Your task to perform on an android device: clear all cookies in the chrome app Image 0: 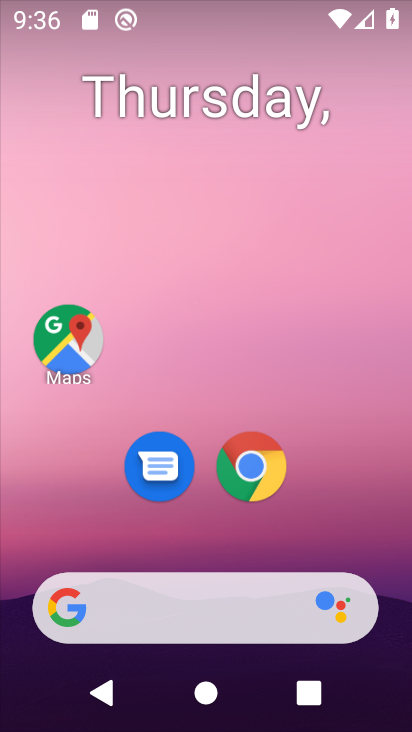
Step 0: drag from (290, 459) to (337, 128)
Your task to perform on an android device: clear all cookies in the chrome app Image 1: 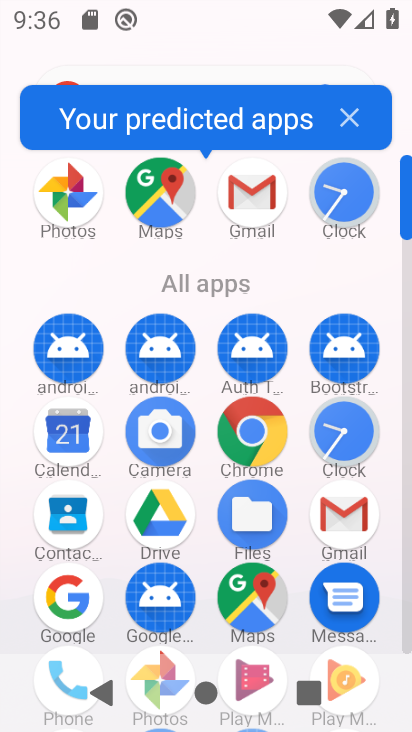
Step 1: click (257, 433)
Your task to perform on an android device: clear all cookies in the chrome app Image 2: 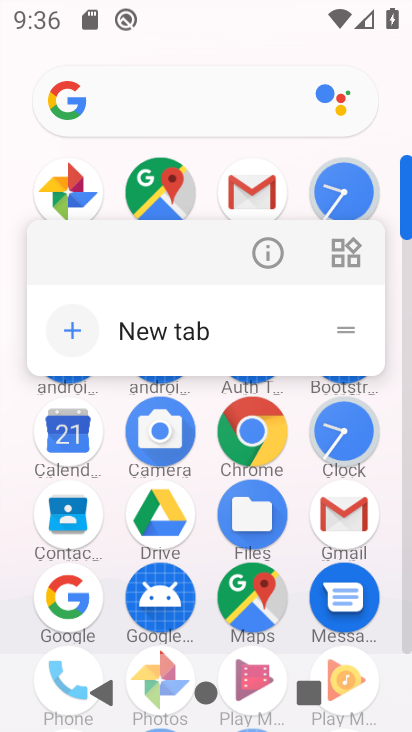
Step 2: click (252, 434)
Your task to perform on an android device: clear all cookies in the chrome app Image 3: 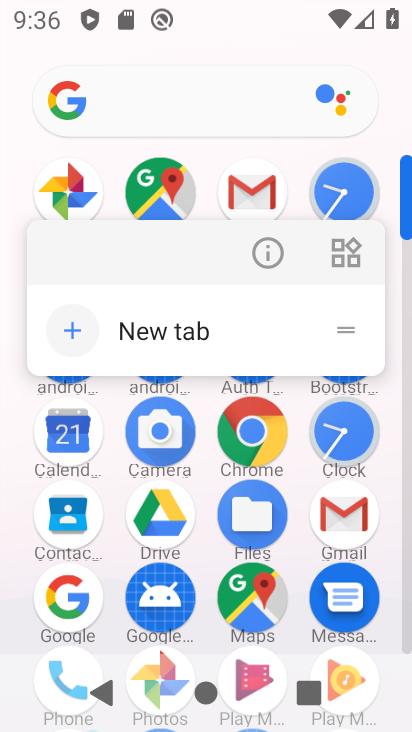
Step 3: click (266, 447)
Your task to perform on an android device: clear all cookies in the chrome app Image 4: 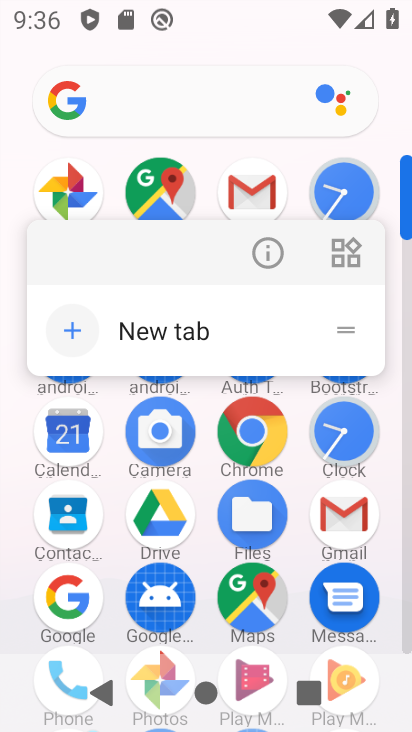
Step 4: click (253, 438)
Your task to perform on an android device: clear all cookies in the chrome app Image 5: 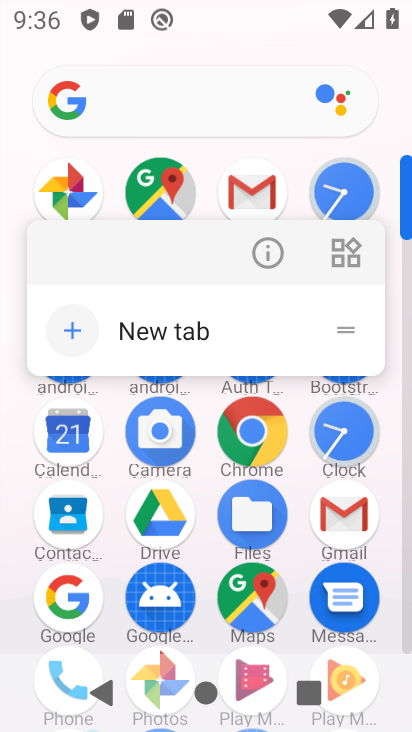
Step 5: click (253, 438)
Your task to perform on an android device: clear all cookies in the chrome app Image 6: 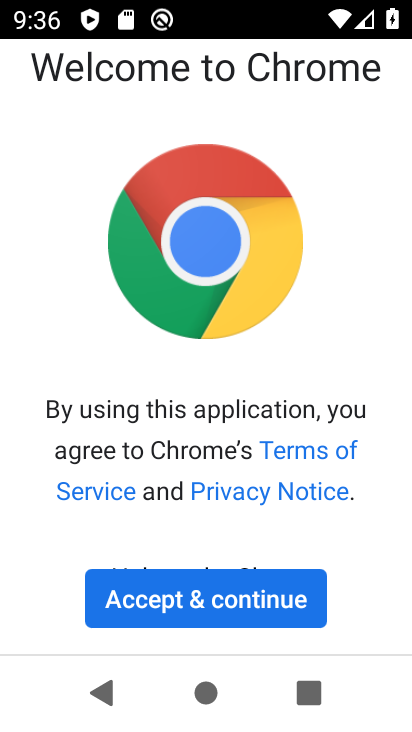
Step 6: click (282, 589)
Your task to perform on an android device: clear all cookies in the chrome app Image 7: 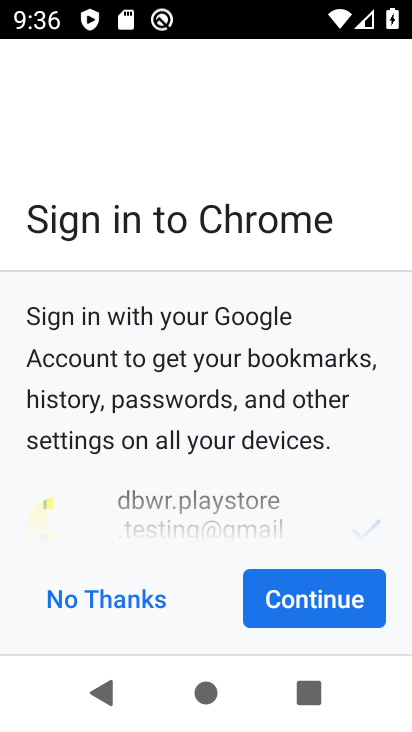
Step 7: click (327, 611)
Your task to perform on an android device: clear all cookies in the chrome app Image 8: 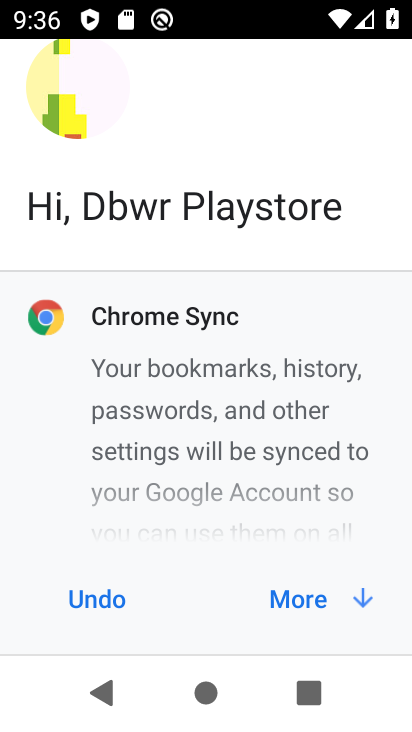
Step 8: click (341, 591)
Your task to perform on an android device: clear all cookies in the chrome app Image 9: 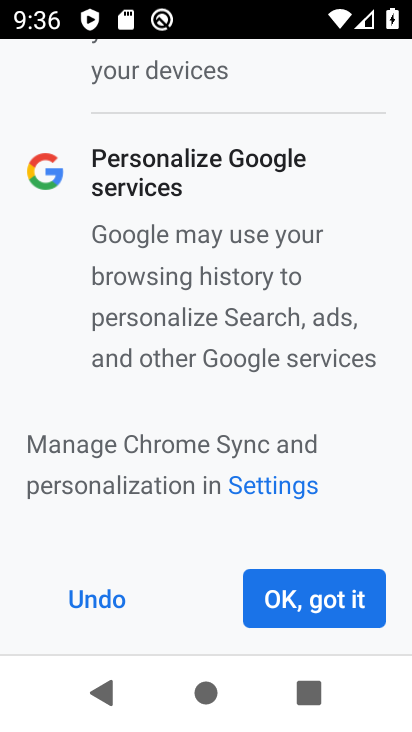
Step 9: click (341, 591)
Your task to perform on an android device: clear all cookies in the chrome app Image 10: 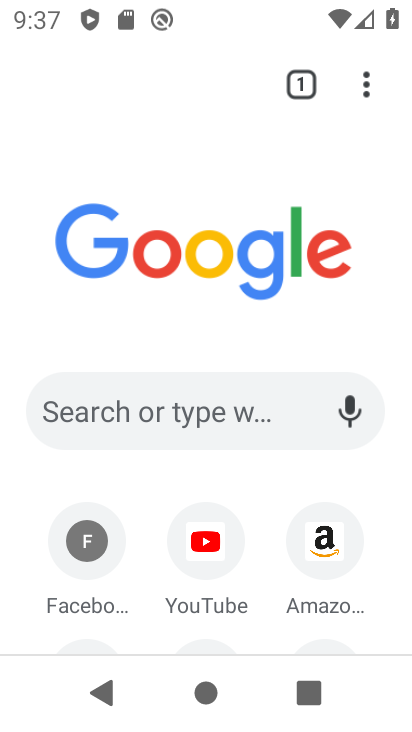
Step 10: click (358, 90)
Your task to perform on an android device: clear all cookies in the chrome app Image 11: 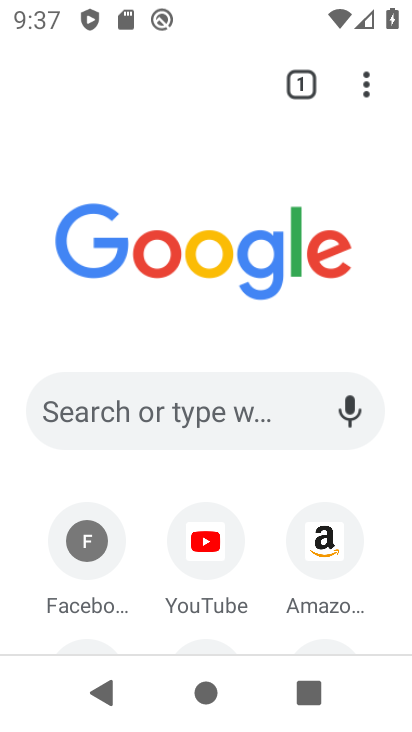
Step 11: click (363, 94)
Your task to perform on an android device: clear all cookies in the chrome app Image 12: 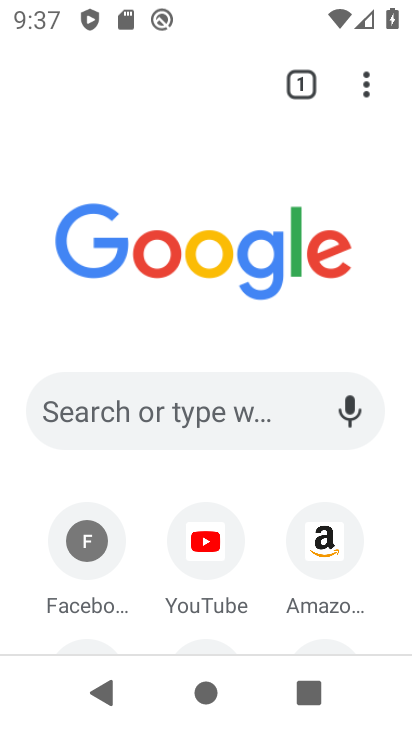
Step 12: click (356, 88)
Your task to perform on an android device: clear all cookies in the chrome app Image 13: 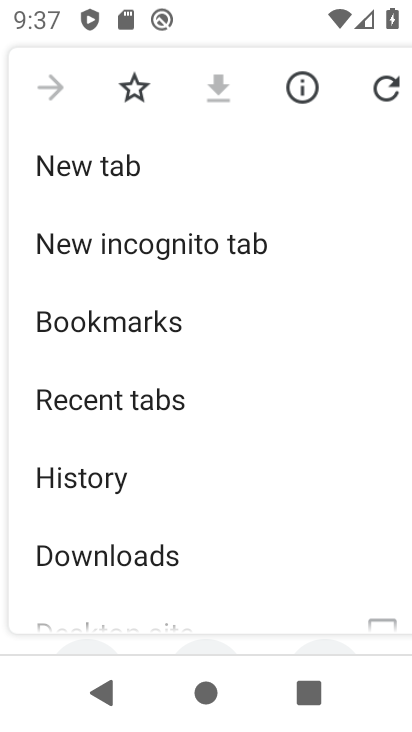
Step 13: drag from (271, 503) to (261, 122)
Your task to perform on an android device: clear all cookies in the chrome app Image 14: 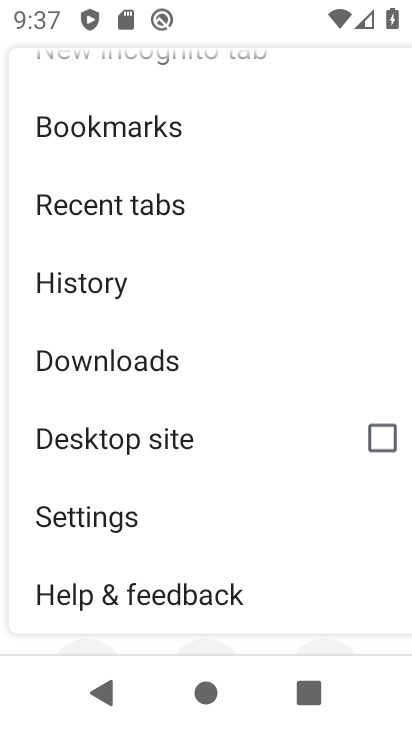
Step 14: click (200, 515)
Your task to perform on an android device: clear all cookies in the chrome app Image 15: 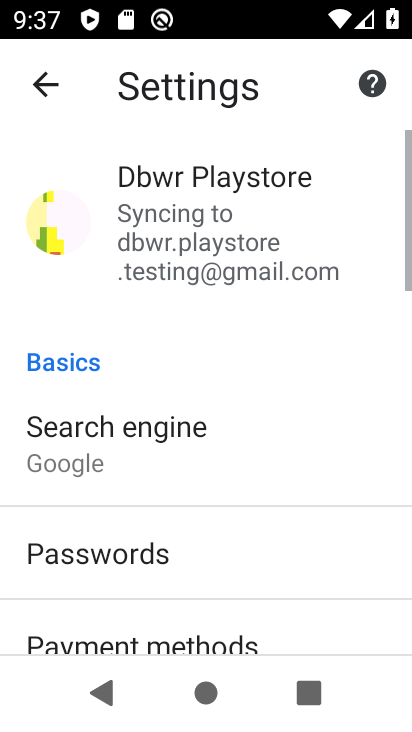
Step 15: drag from (200, 515) to (240, 107)
Your task to perform on an android device: clear all cookies in the chrome app Image 16: 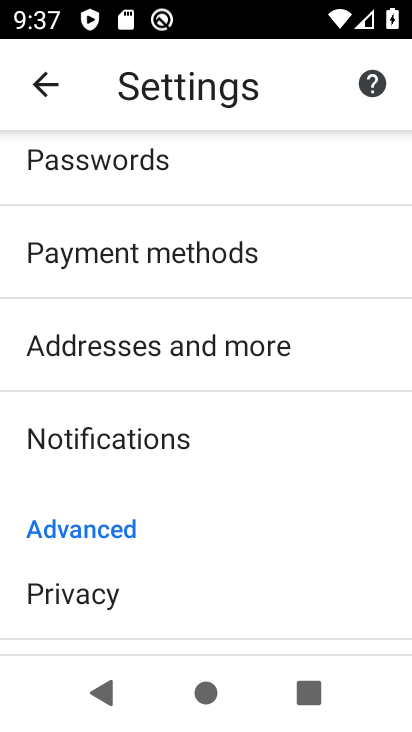
Step 16: click (229, 591)
Your task to perform on an android device: clear all cookies in the chrome app Image 17: 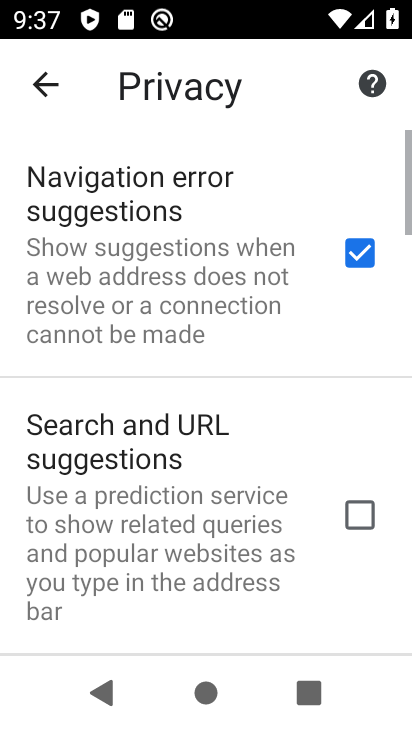
Step 17: drag from (260, 517) to (253, 103)
Your task to perform on an android device: clear all cookies in the chrome app Image 18: 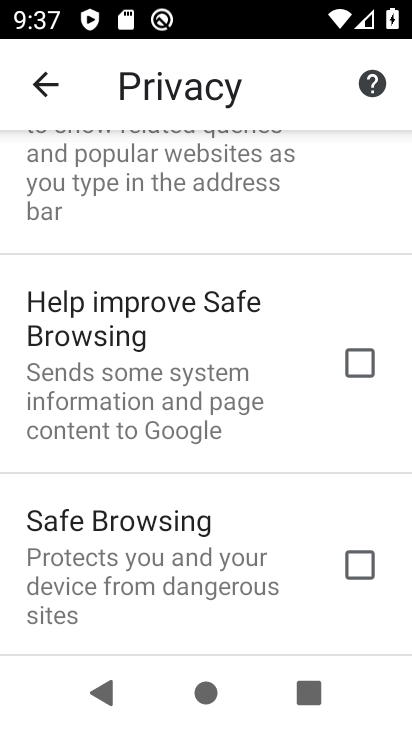
Step 18: drag from (258, 528) to (247, 113)
Your task to perform on an android device: clear all cookies in the chrome app Image 19: 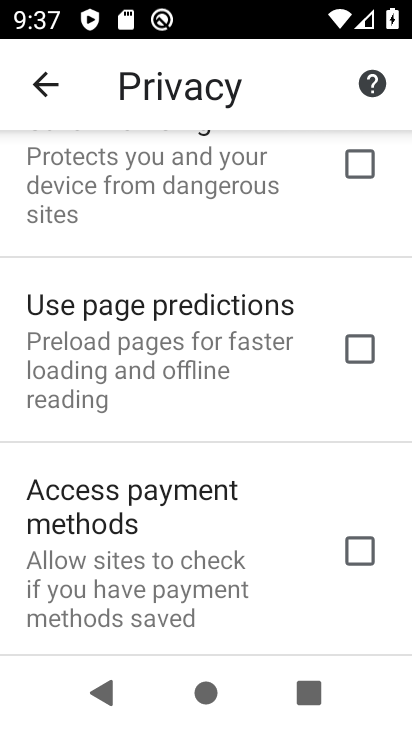
Step 19: drag from (249, 563) to (287, 165)
Your task to perform on an android device: clear all cookies in the chrome app Image 20: 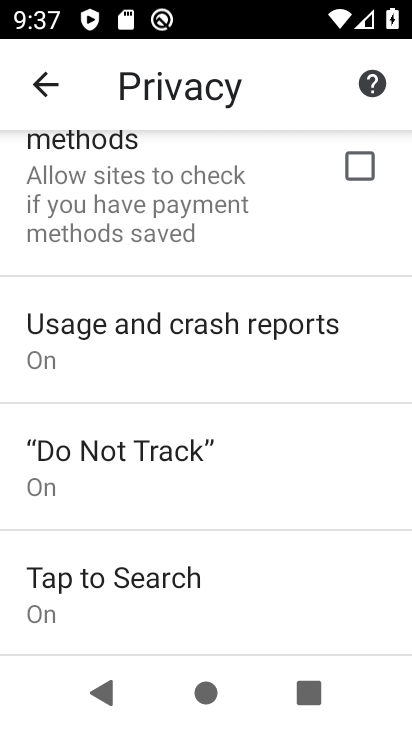
Step 20: drag from (273, 600) to (298, 182)
Your task to perform on an android device: clear all cookies in the chrome app Image 21: 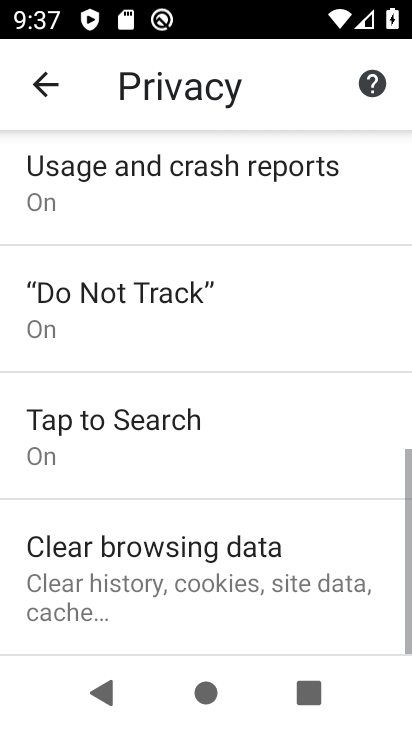
Step 21: click (297, 582)
Your task to perform on an android device: clear all cookies in the chrome app Image 22: 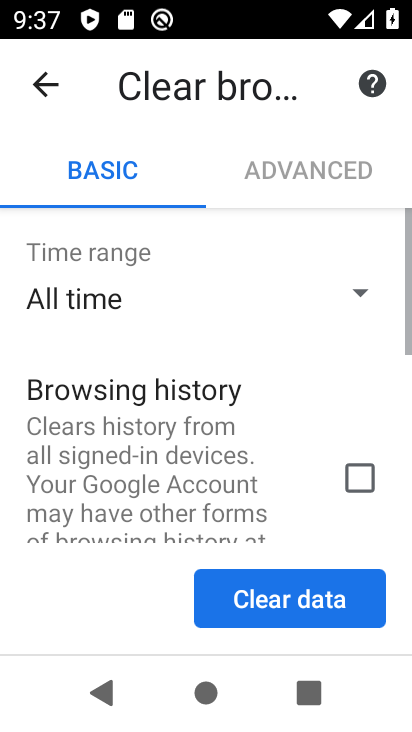
Step 22: drag from (307, 368) to (310, 155)
Your task to perform on an android device: clear all cookies in the chrome app Image 23: 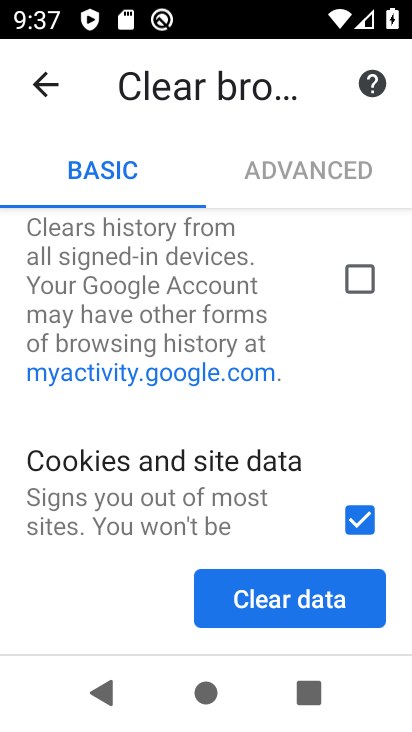
Step 23: click (292, 589)
Your task to perform on an android device: clear all cookies in the chrome app Image 24: 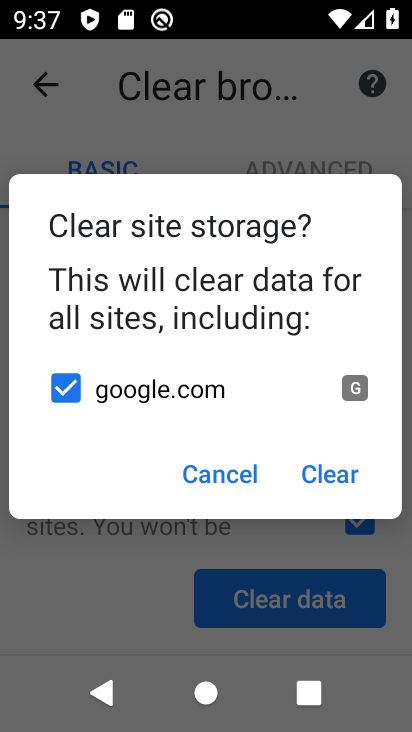
Step 24: click (331, 496)
Your task to perform on an android device: clear all cookies in the chrome app Image 25: 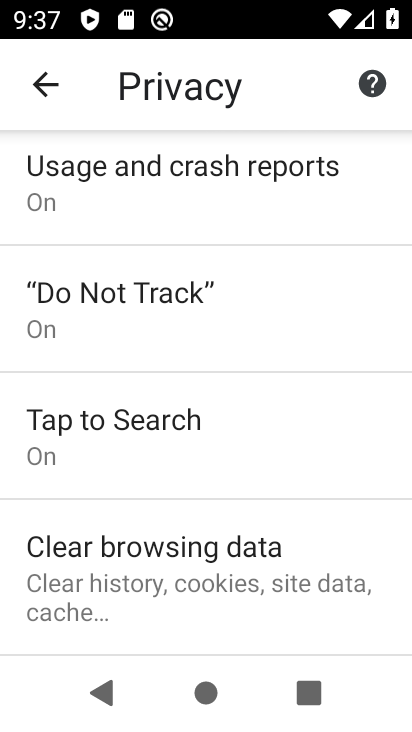
Step 25: task complete